Your task to perform on an android device: Go to eBay Image 0: 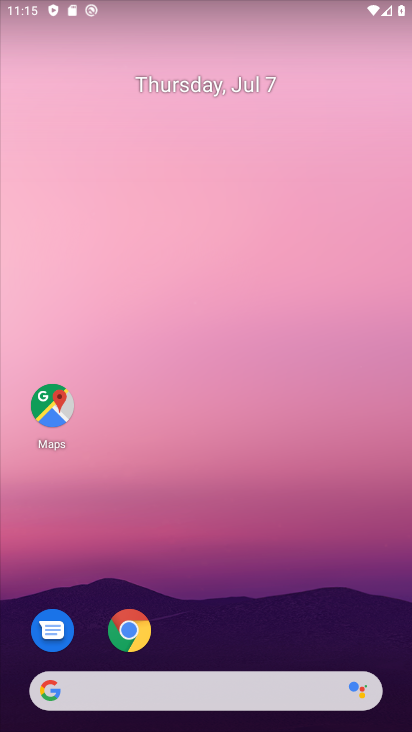
Step 0: click (128, 632)
Your task to perform on an android device: Go to eBay Image 1: 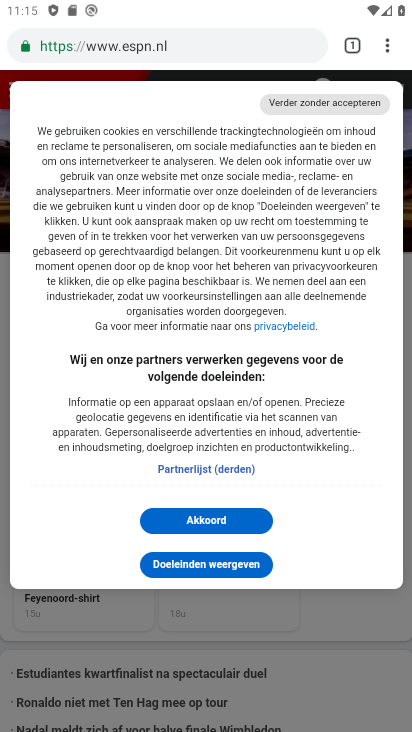
Step 1: click (185, 42)
Your task to perform on an android device: Go to eBay Image 2: 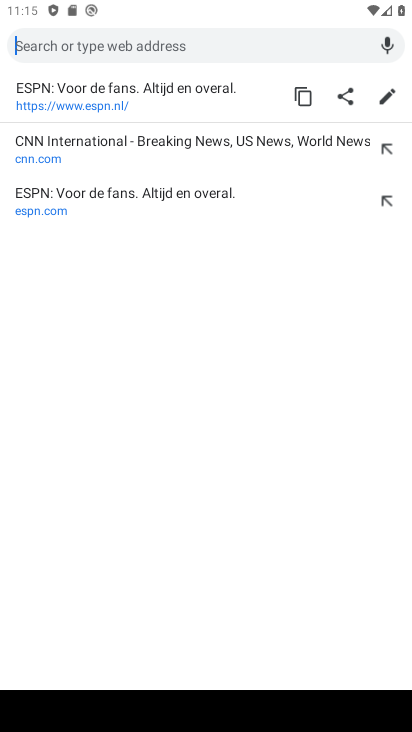
Step 2: type "eBay"
Your task to perform on an android device: Go to eBay Image 3: 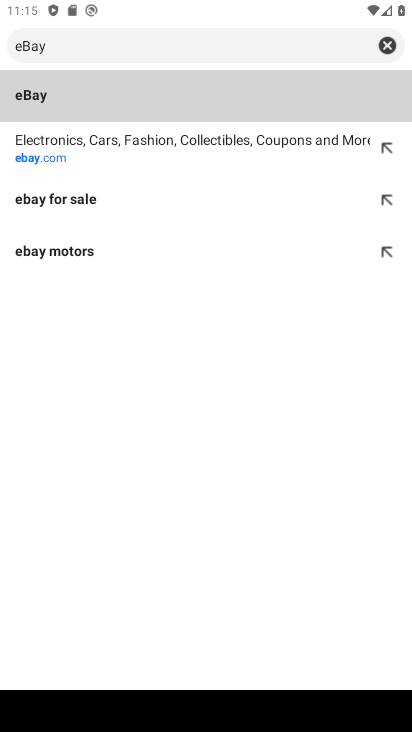
Step 3: click (33, 98)
Your task to perform on an android device: Go to eBay Image 4: 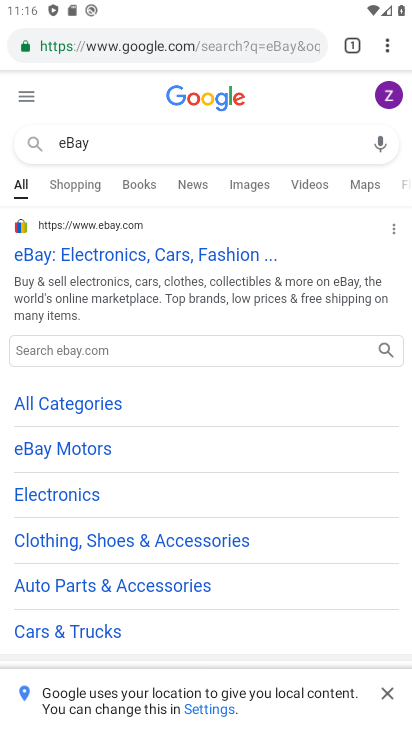
Step 4: click (125, 261)
Your task to perform on an android device: Go to eBay Image 5: 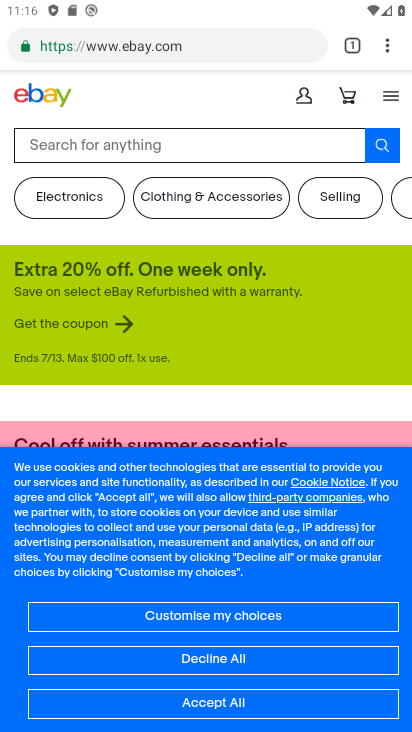
Step 5: task complete